Your task to perform on an android device: install app "Messages" Image 0: 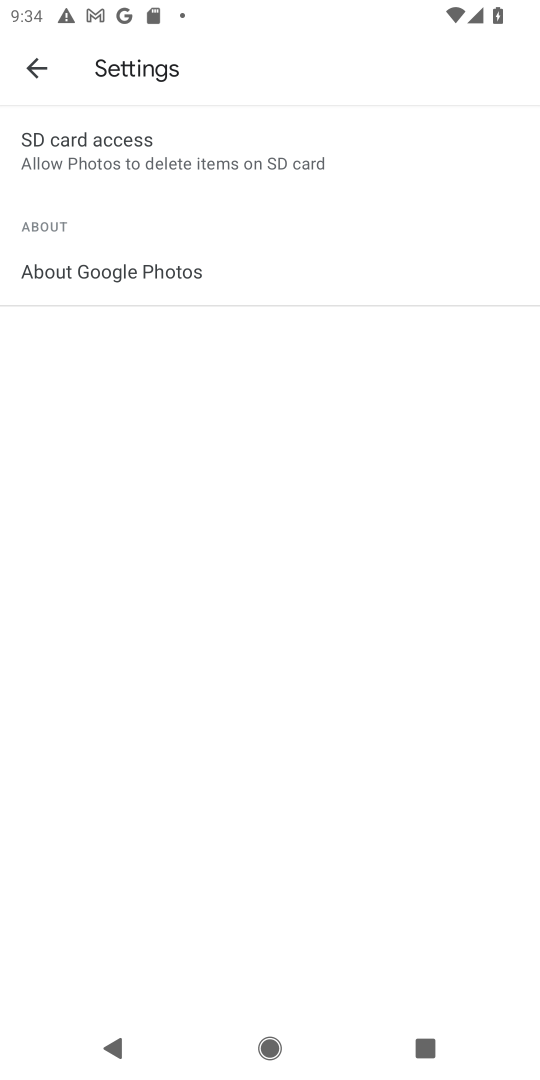
Step 0: press home button
Your task to perform on an android device: install app "Messages" Image 1: 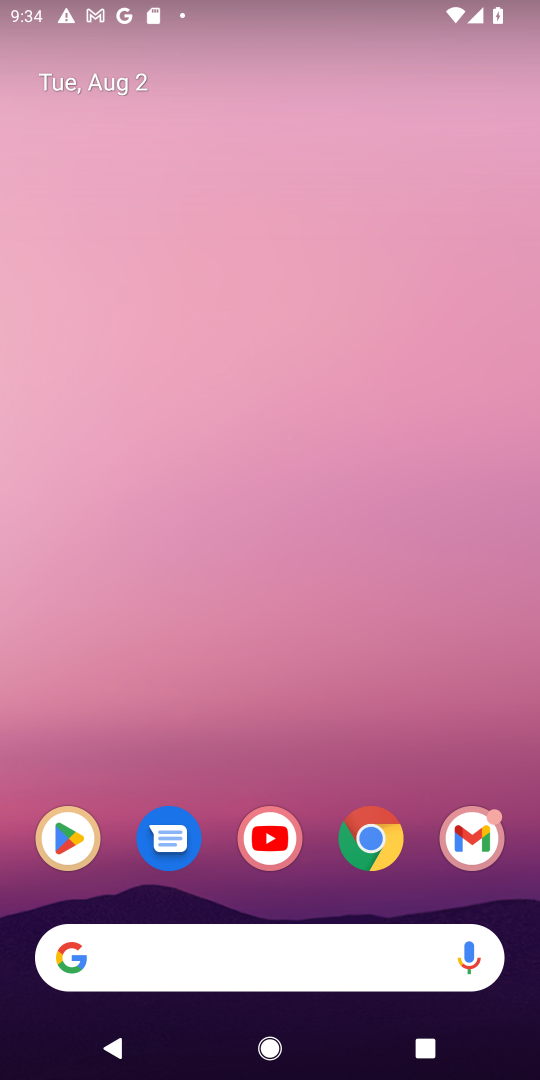
Step 1: drag from (315, 716) to (349, 79)
Your task to perform on an android device: install app "Messages" Image 2: 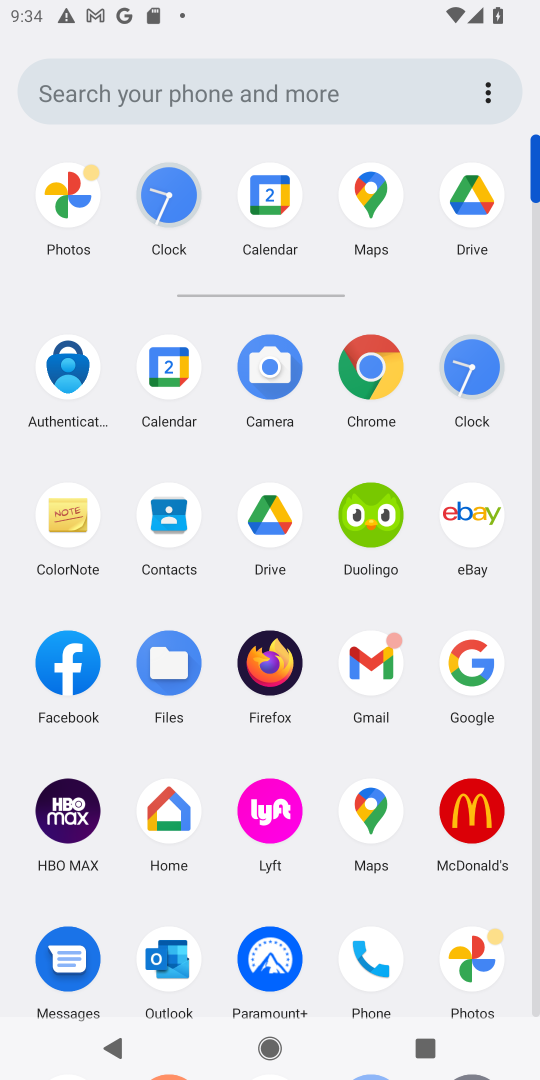
Step 2: drag from (416, 881) to (412, 556)
Your task to perform on an android device: install app "Messages" Image 3: 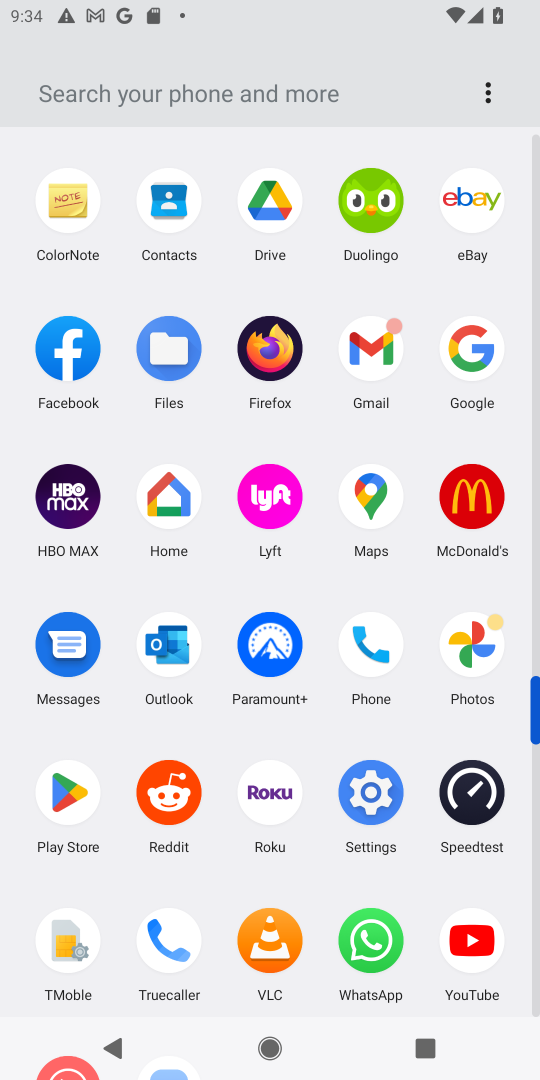
Step 3: click (56, 789)
Your task to perform on an android device: install app "Messages" Image 4: 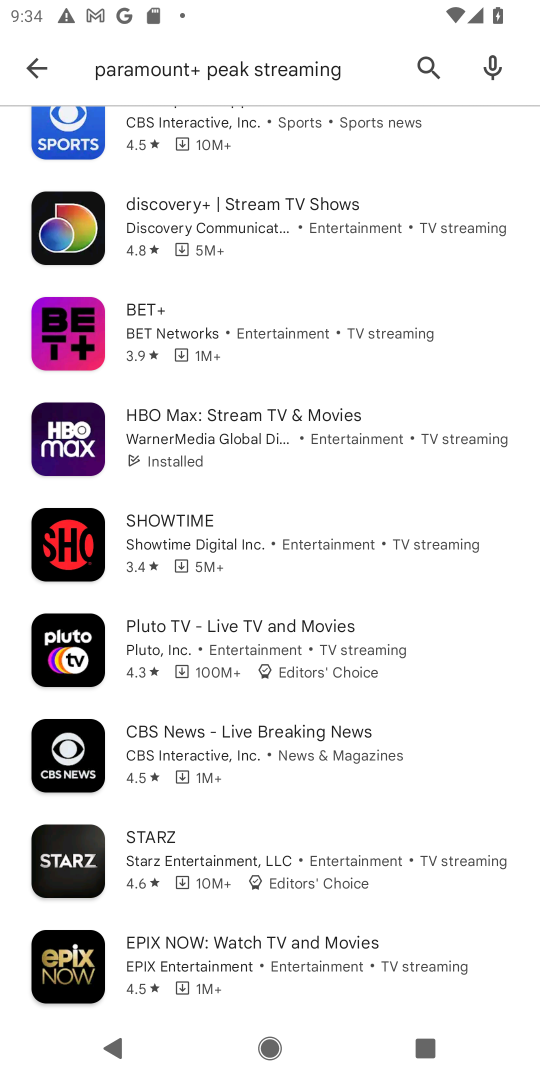
Step 4: click (426, 61)
Your task to perform on an android device: install app "Messages" Image 5: 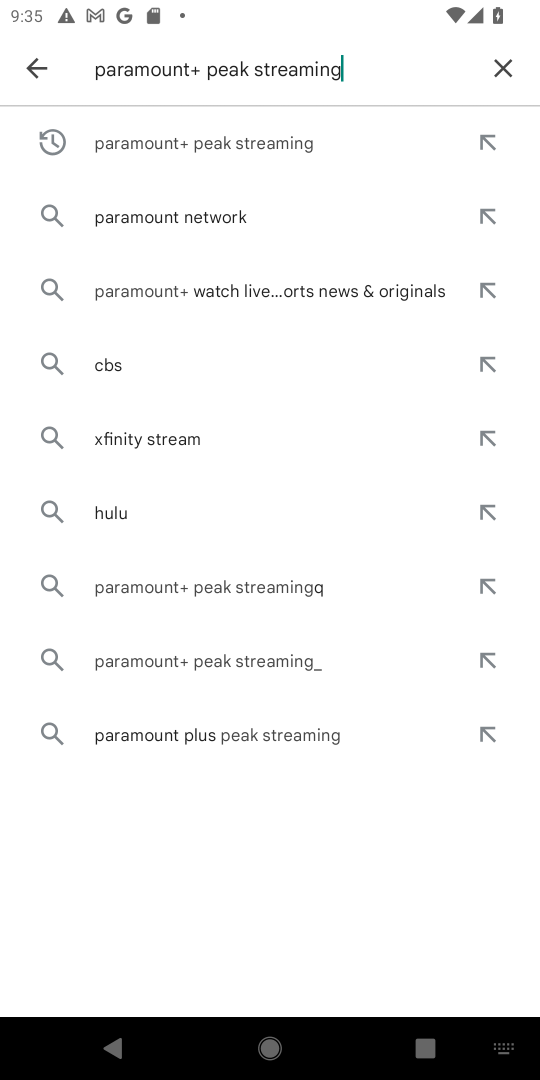
Step 5: click (508, 65)
Your task to perform on an android device: install app "Messages" Image 6: 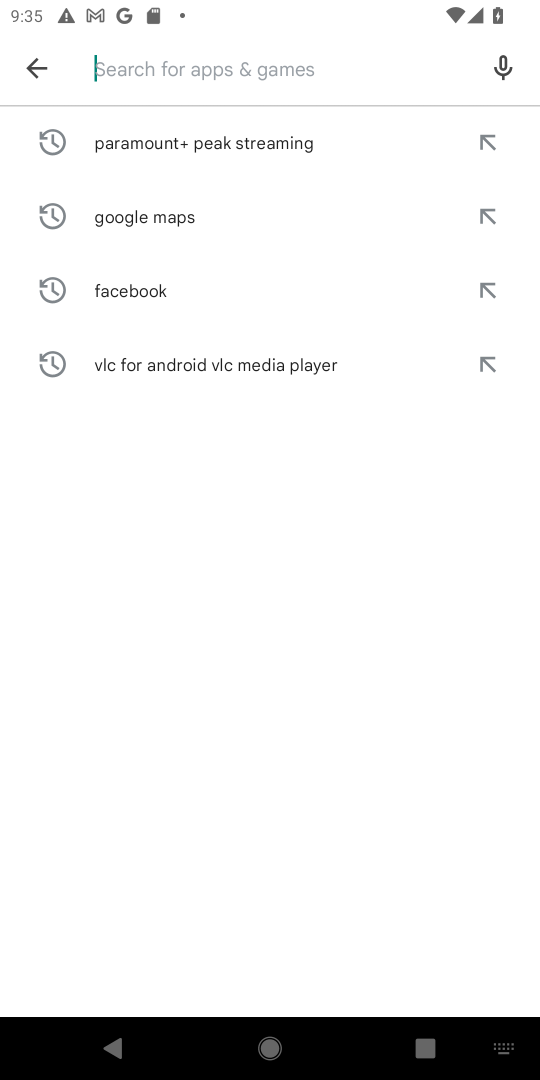
Step 6: type "message "
Your task to perform on an android device: install app "Messages" Image 7: 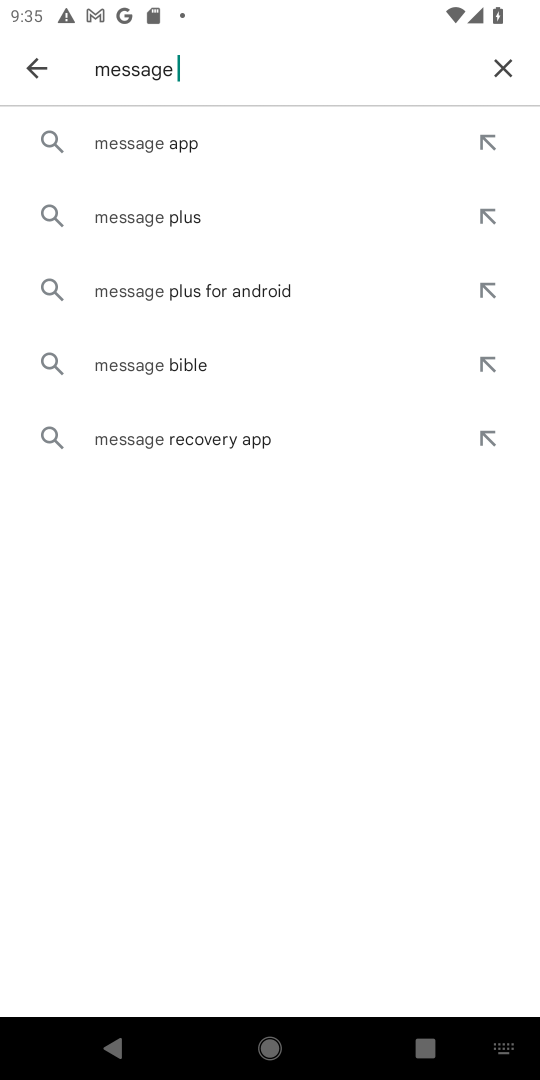
Step 7: click (188, 139)
Your task to perform on an android device: install app "Messages" Image 8: 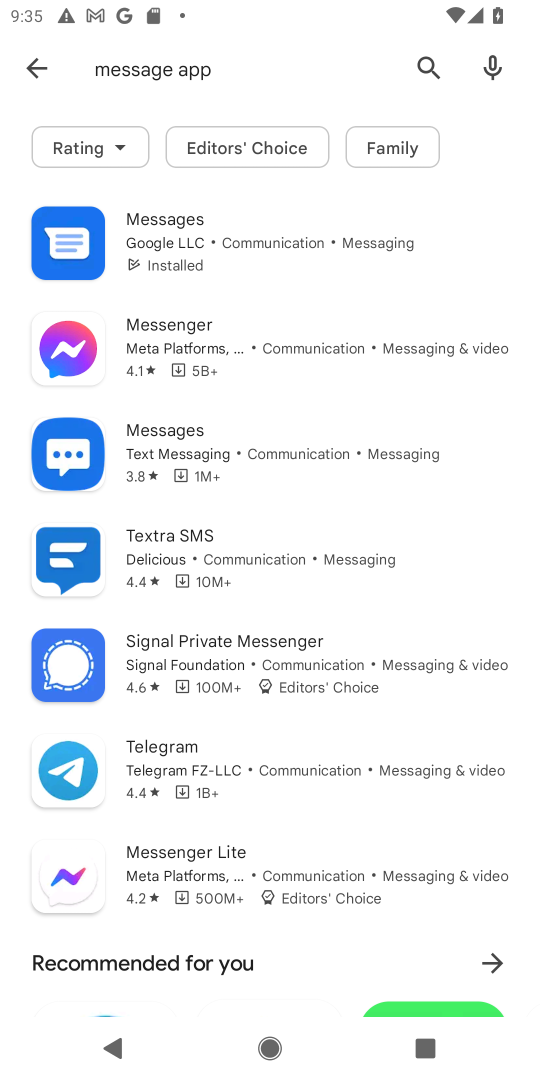
Step 8: click (222, 249)
Your task to perform on an android device: install app "Messages" Image 9: 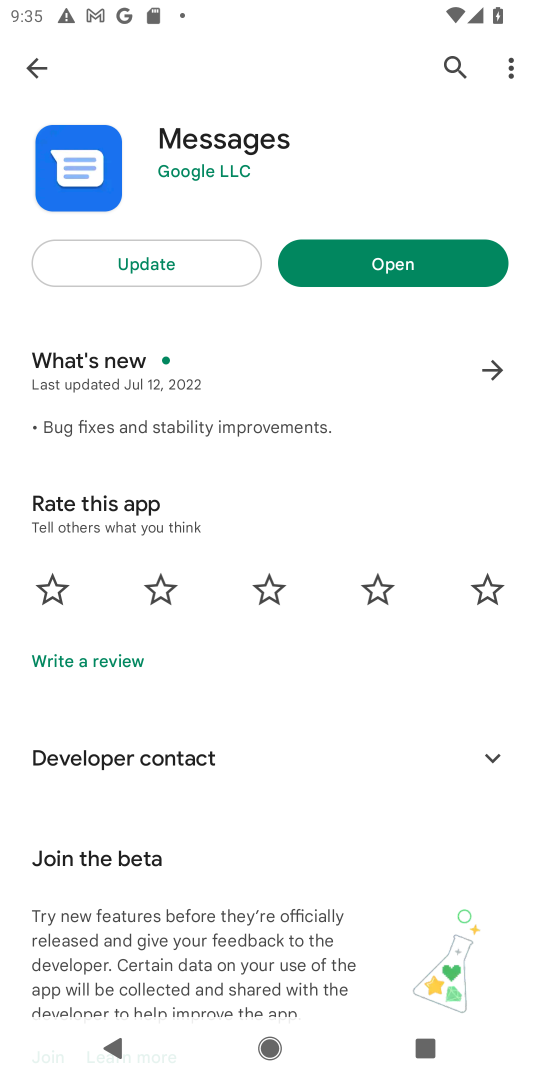
Step 9: task complete